Your task to perform on an android device: Play the new Taylor Swift video on YouTube Image 0: 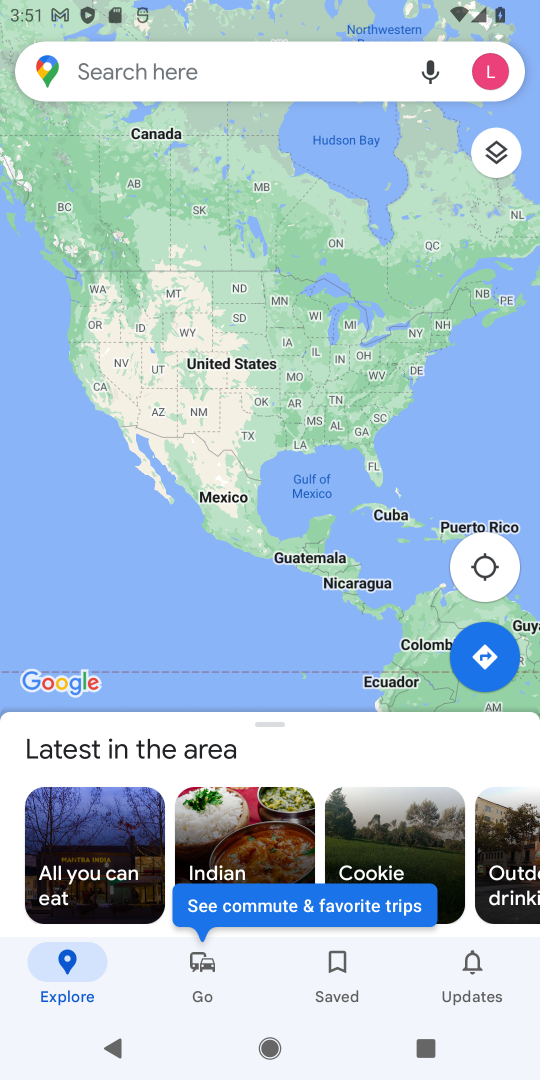
Step 0: press home button
Your task to perform on an android device: Play the new Taylor Swift video on YouTube Image 1: 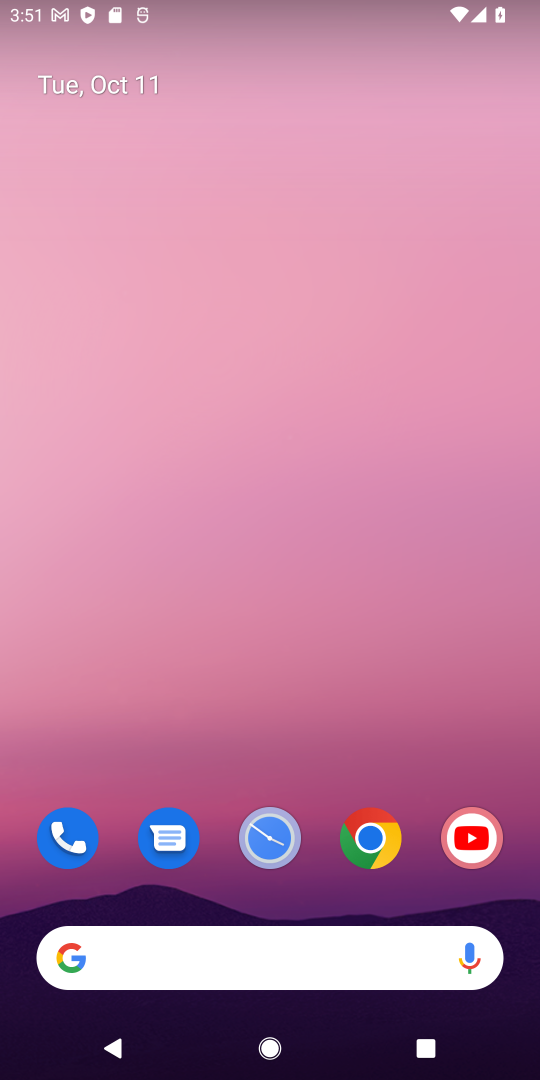
Step 1: click (475, 857)
Your task to perform on an android device: Play the new Taylor Swift video on YouTube Image 2: 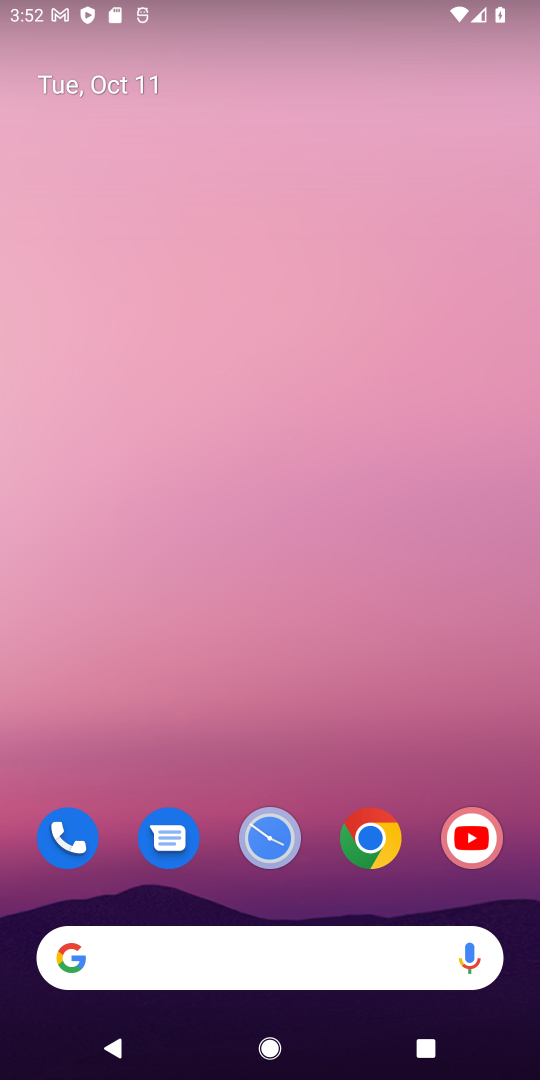
Step 2: click (459, 844)
Your task to perform on an android device: Play the new Taylor Swift video on YouTube Image 3: 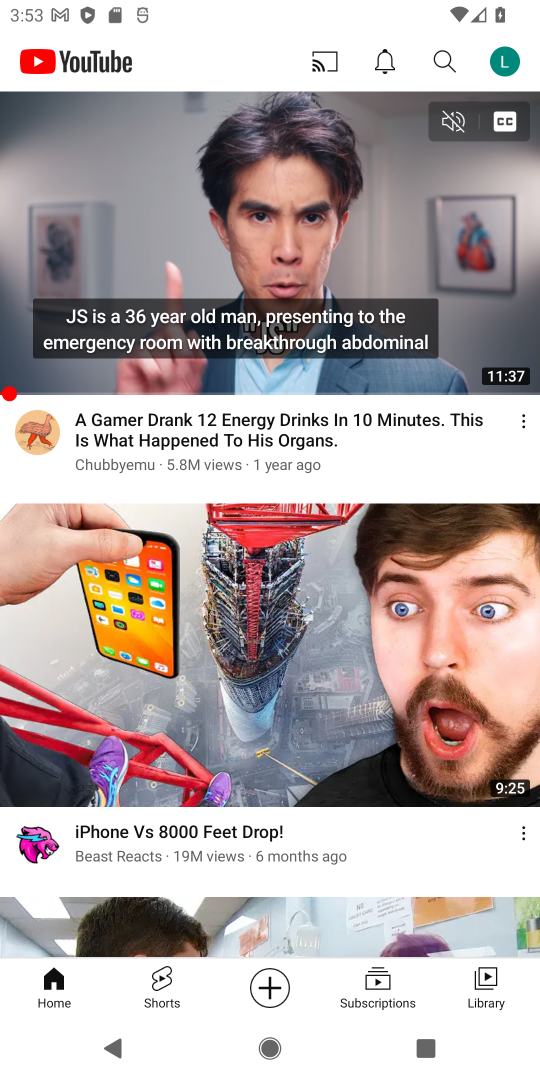
Step 3: click (451, 54)
Your task to perform on an android device: Play the new Taylor Swift video on YouTube Image 4: 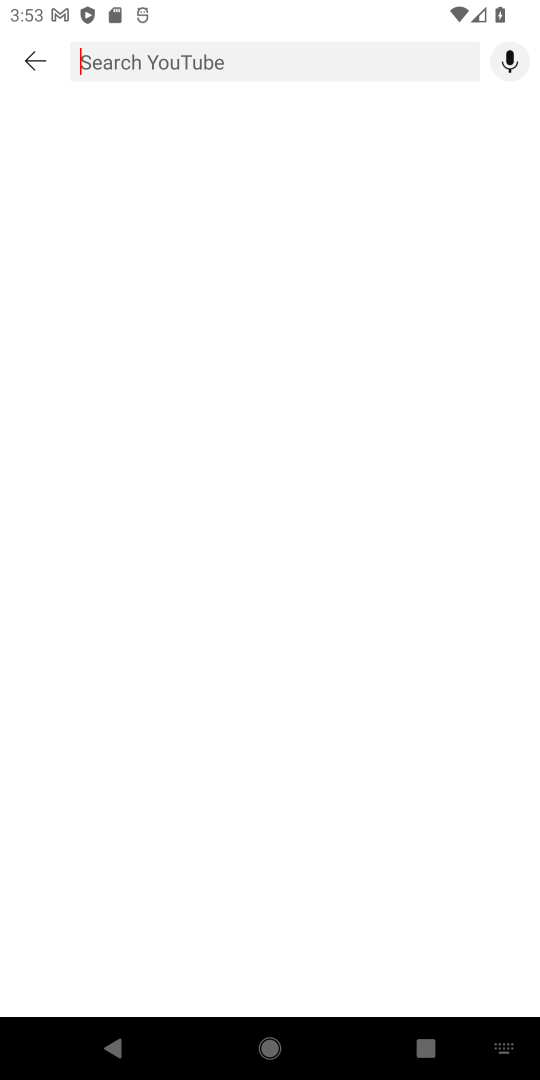
Step 4: click (228, 65)
Your task to perform on an android device: Play the new Taylor Swift video on YouTube Image 5: 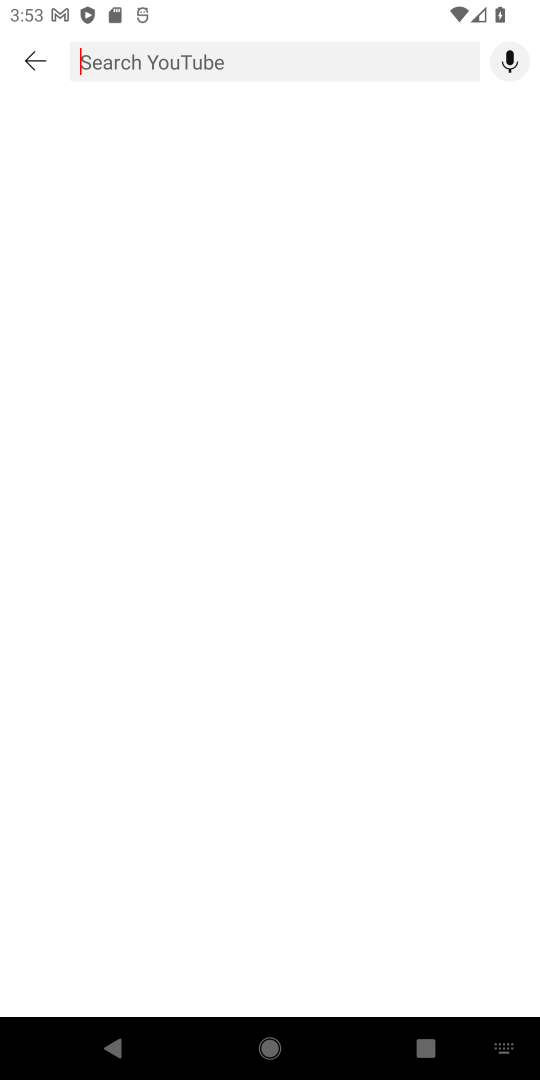
Step 5: type "Taylor Swift"
Your task to perform on an android device: Play the new Taylor Swift video on YouTube Image 6: 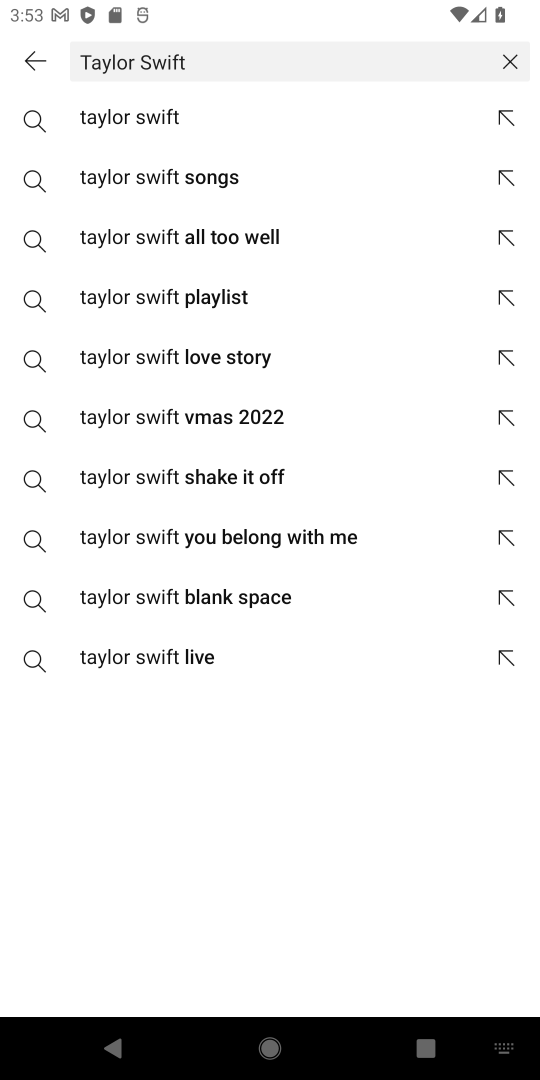
Step 6: click (183, 119)
Your task to perform on an android device: Play the new Taylor Swift video on YouTube Image 7: 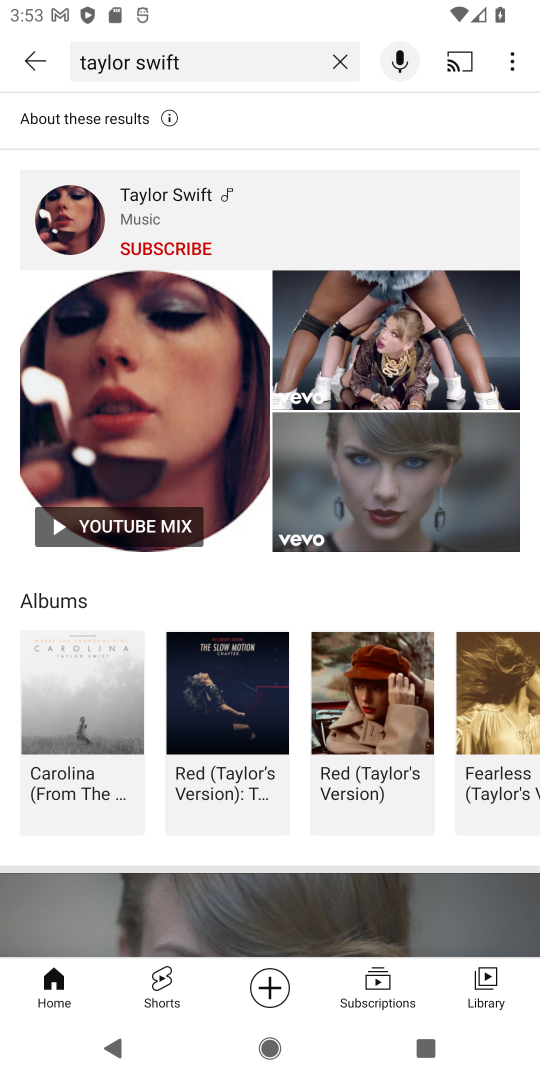
Step 7: click (192, 256)
Your task to perform on an android device: Play the new Taylor Swift video on YouTube Image 8: 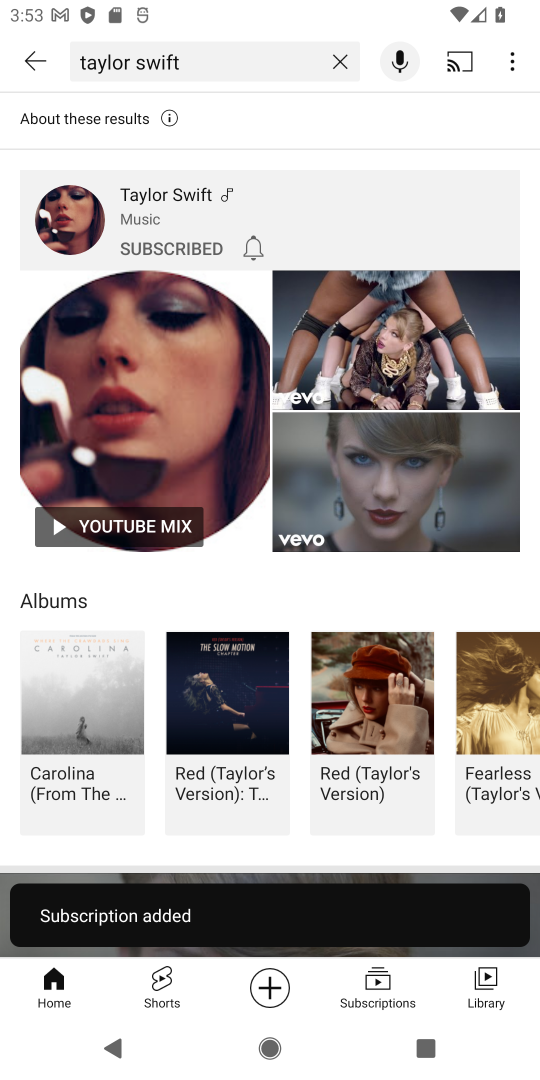
Step 8: click (180, 201)
Your task to perform on an android device: Play the new Taylor Swift video on YouTube Image 9: 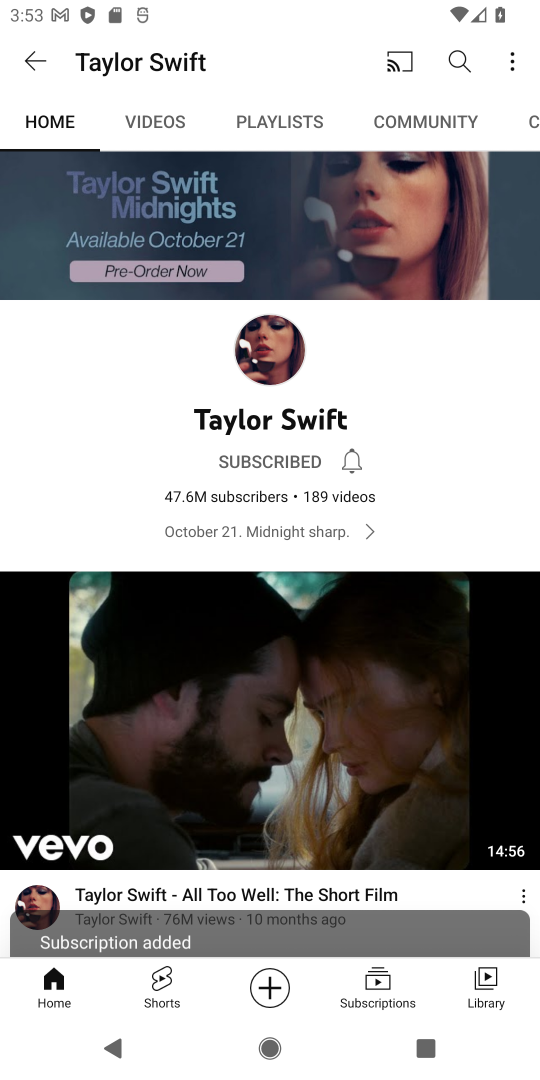
Step 9: drag from (242, 741) to (343, 371)
Your task to perform on an android device: Play the new Taylor Swift video on YouTube Image 10: 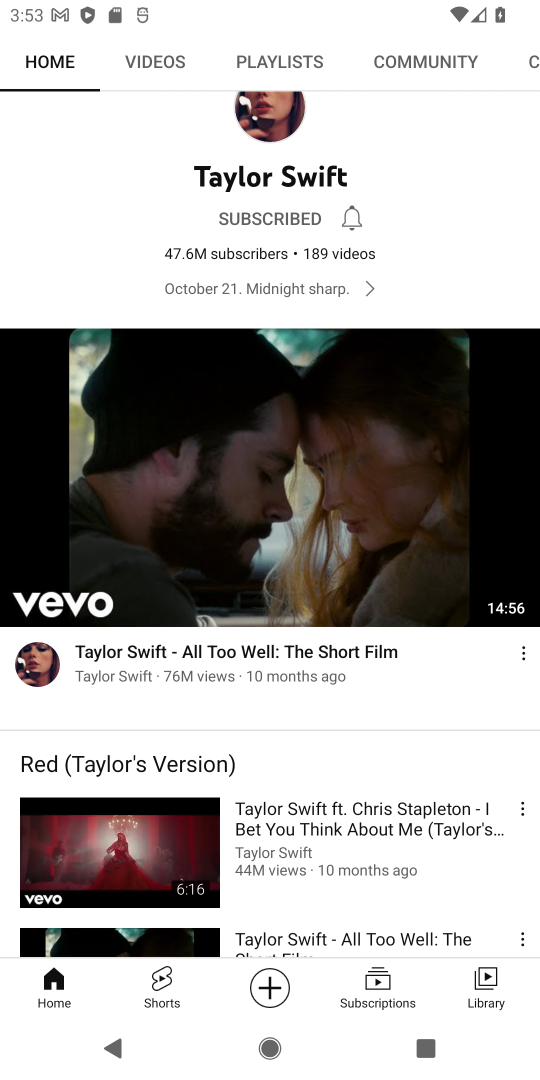
Step 10: click (269, 445)
Your task to perform on an android device: Play the new Taylor Swift video on YouTube Image 11: 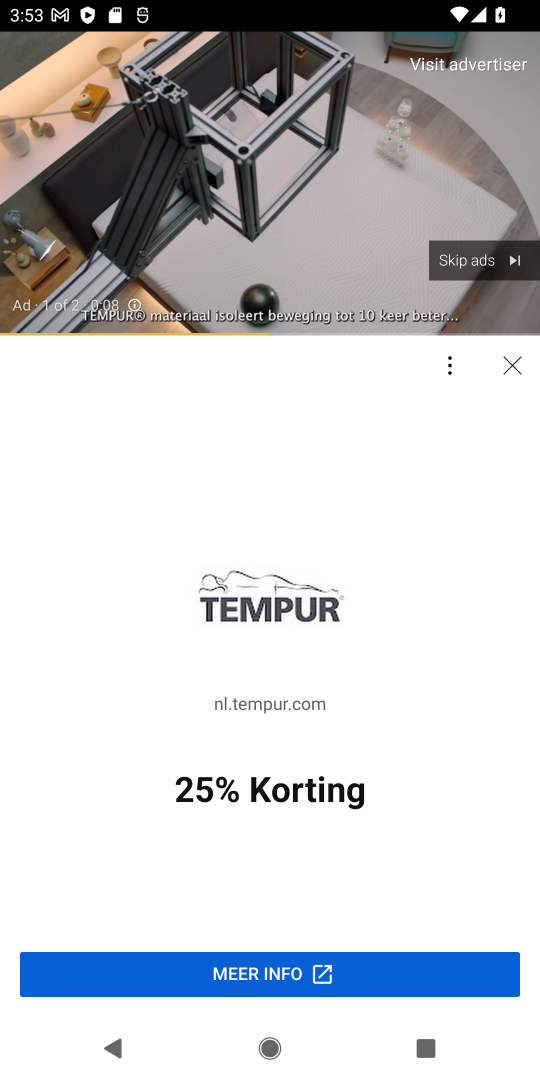
Step 11: click (464, 252)
Your task to perform on an android device: Play the new Taylor Swift video on YouTube Image 12: 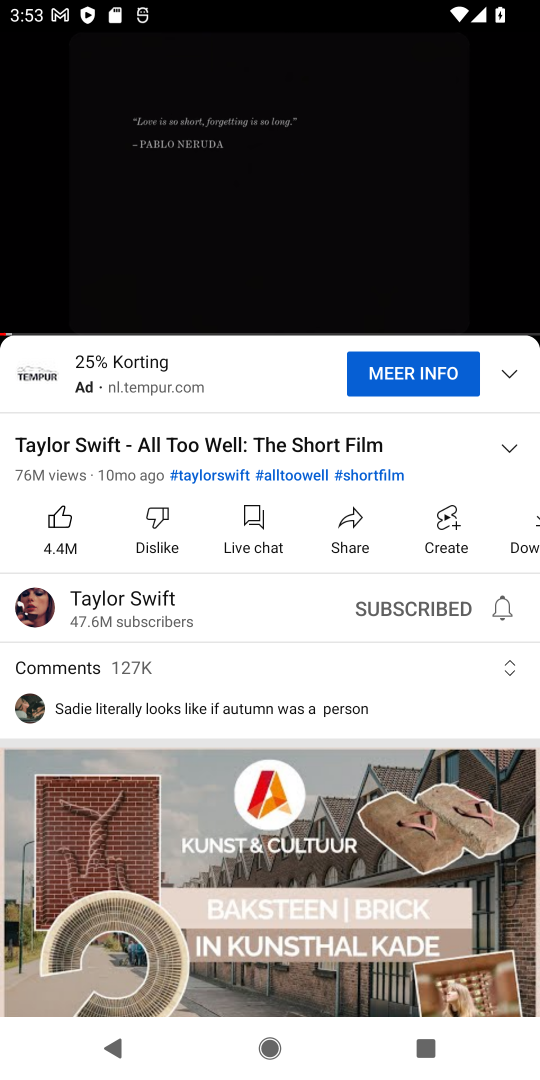
Step 12: task complete